Your task to perform on an android device: Open settings Image 0: 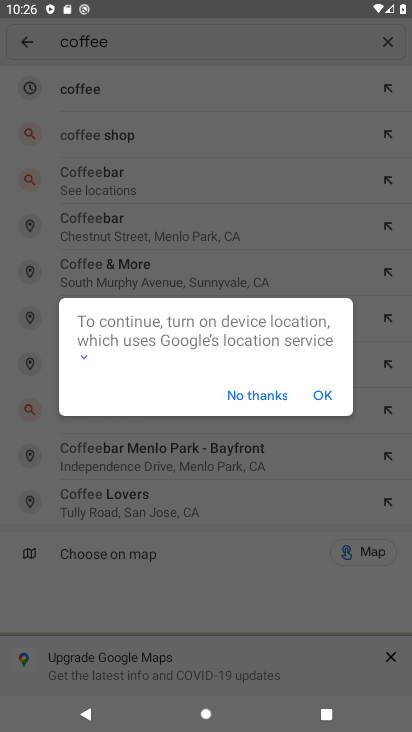
Step 0: press home button
Your task to perform on an android device: Open settings Image 1: 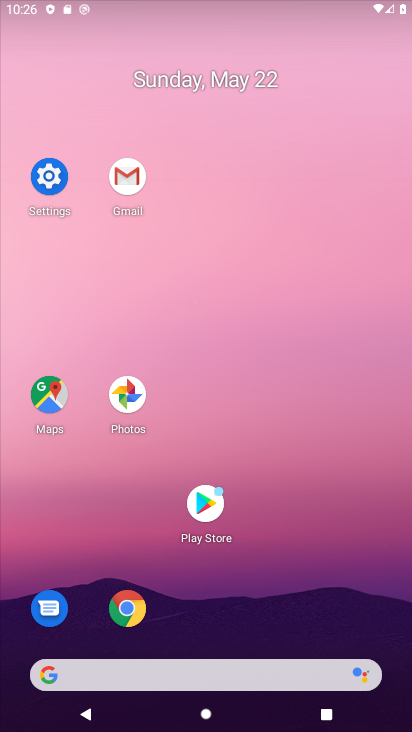
Step 1: click (53, 158)
Your task to perform on an android device: Open settings Image 2: 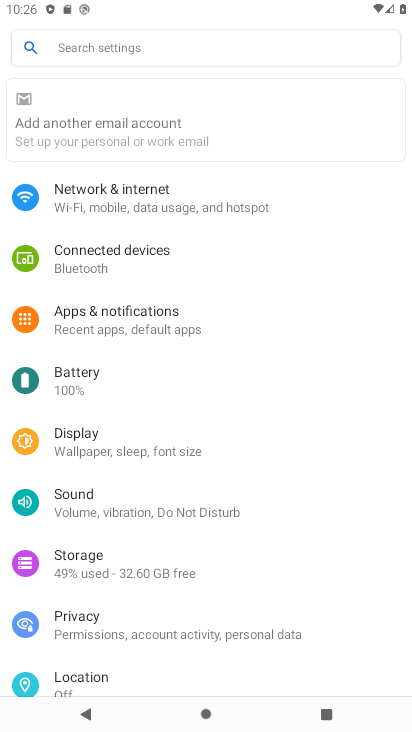
Step 2: task complete